Your task to perform on an android device: Check the news Image 0: 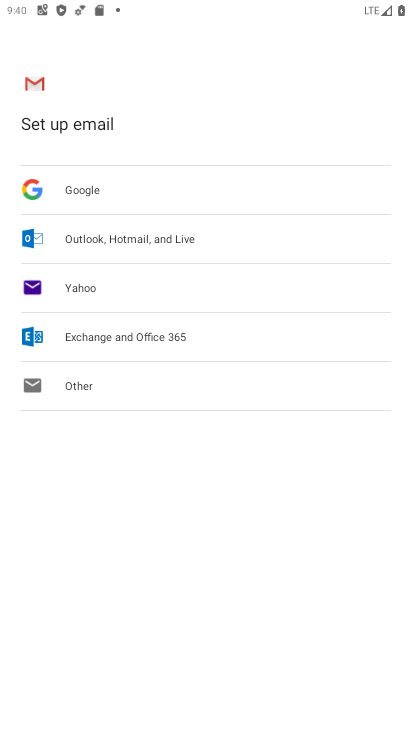
Step 0: press home button
Your task to perform on an android device: Check the news Image 1: 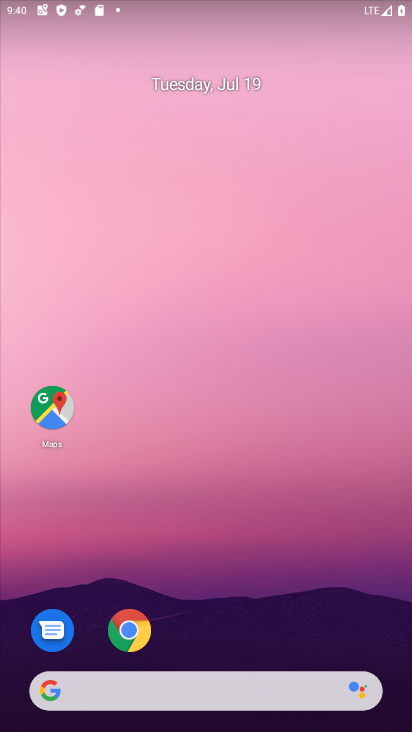
Step 1: drag from (225, 625) to (341, 731)
Your task to perform on an android device: Check the news Image 2: 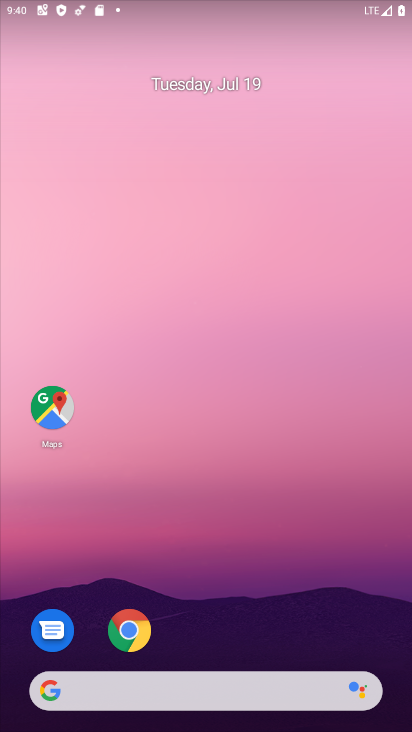
Step 2: drag from (227, 655) to (301, 67)
Your task to perform on an android device: Check the news Image 3: 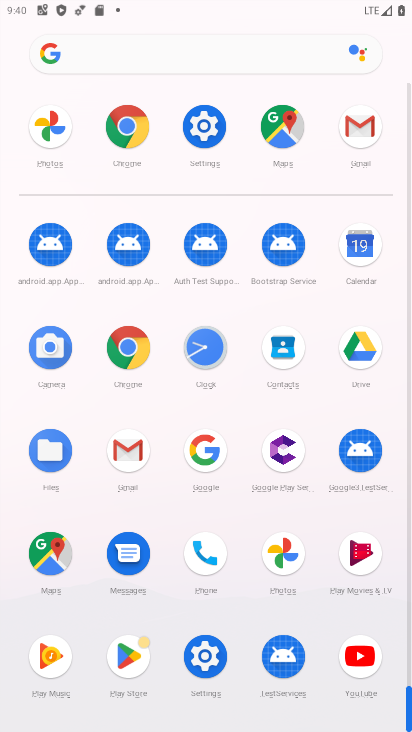
Step 3: click (207, 465)
Your task to perform on an android device: Check the news Image 4: 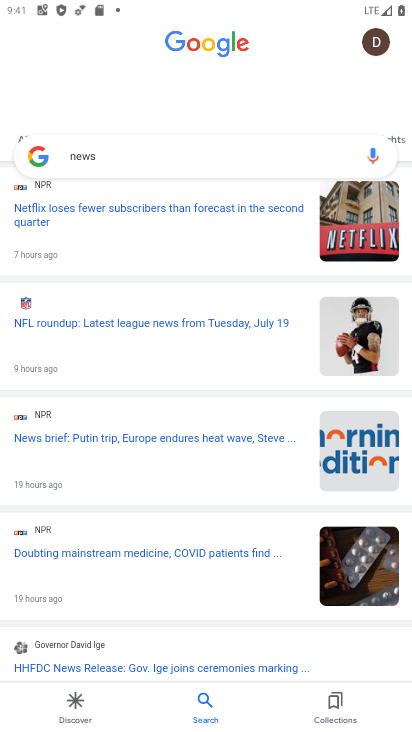
Step 4: task complete